Your task to perform on an android device: open a bookmark in the chrome app Image 0: 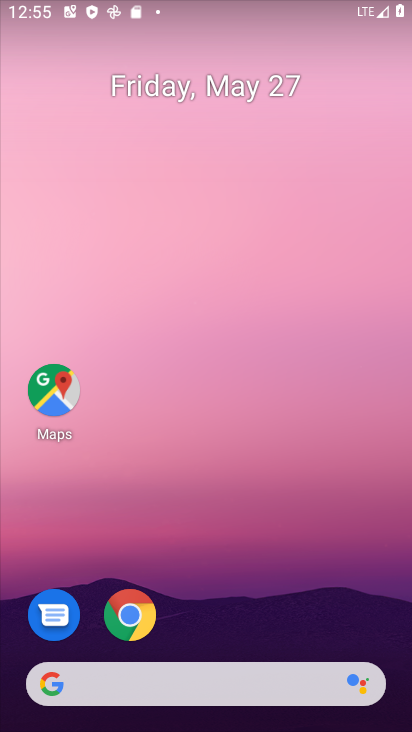
Step 0: drag from (291, 638) to (347, 73)
Your task to perform on an android device: open a bookmark in the chrome app Image 1: 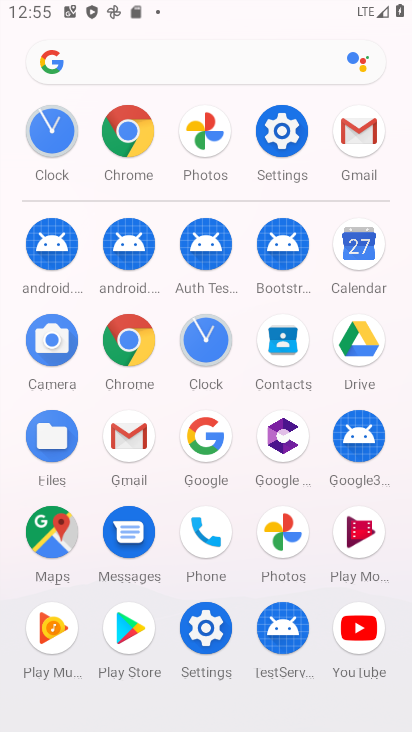
Step 1: click (126, 340)
Your task to perform on an android device: open a bookmark in the chrome app Image 2: 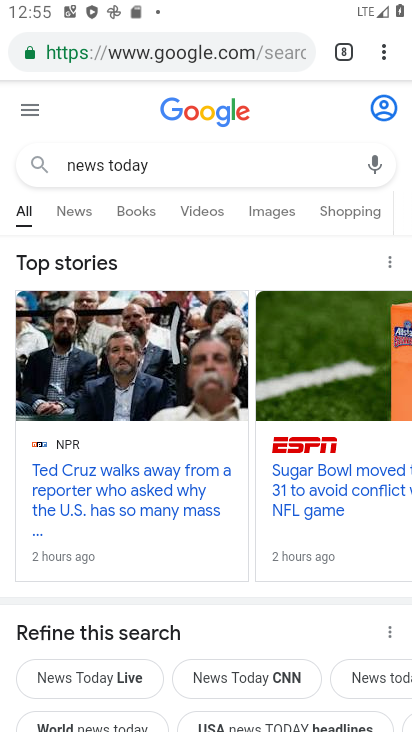
Step 2: task complete